Your task to perform on an android device: open device folders in google photos Image 0: 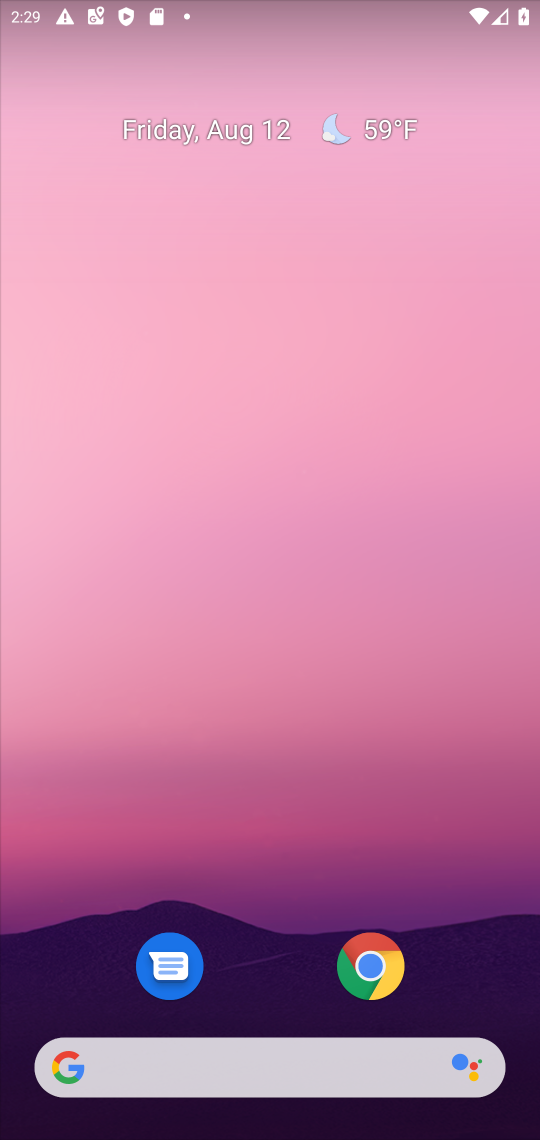
Step 0: drag from (250, 899) to (411, 151)
Your task to perform on an android device: open device folders in google photos Image 1: 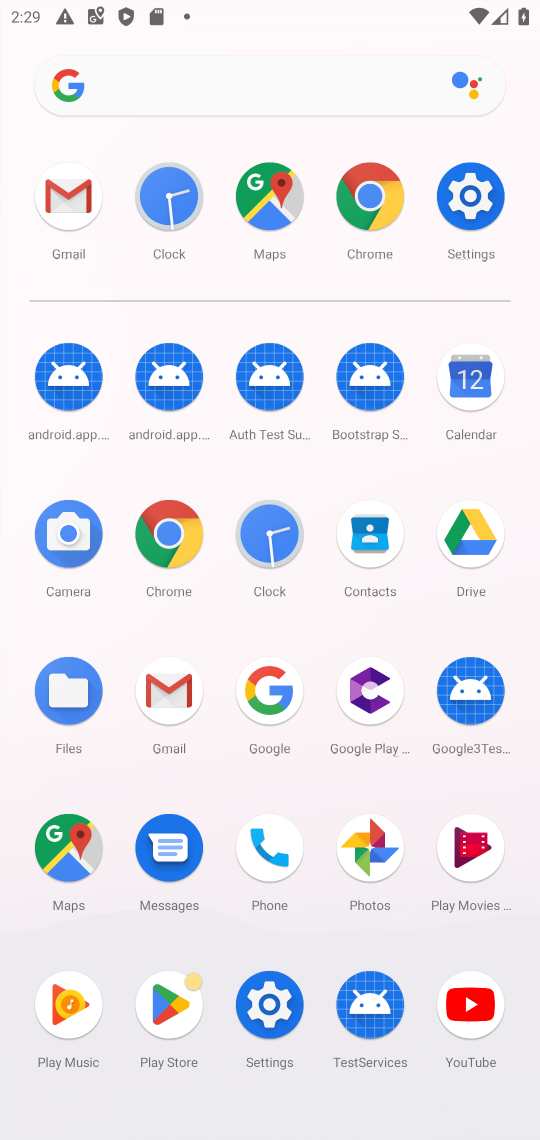
Step 1: click (368, 829)
Your task to perform on an android device: open device folders in google photos Image 2: 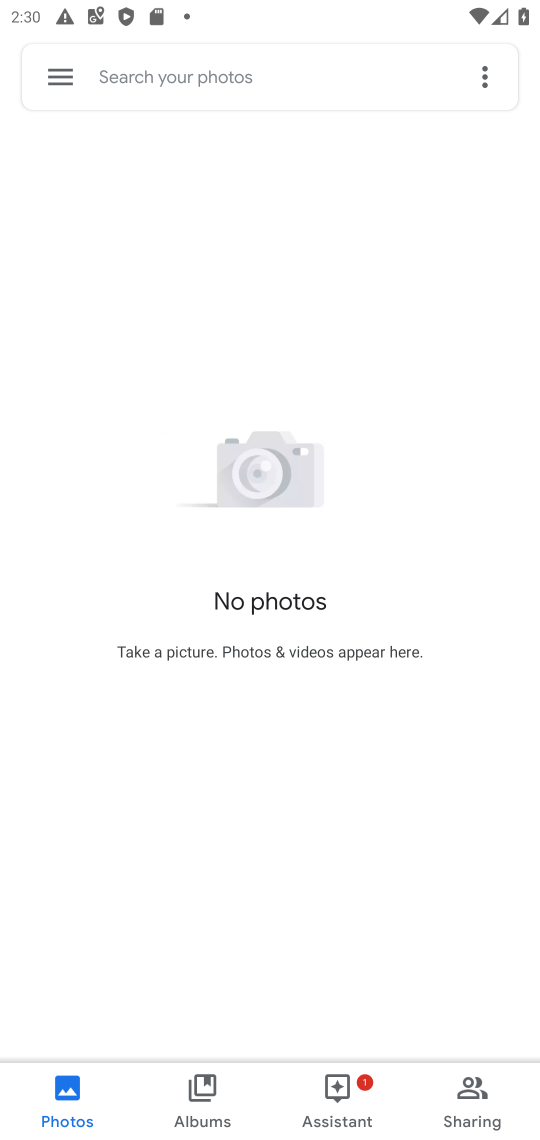
Step 2: click (70, 70)
Your task to perform on an android device: open device folders in google photos Image 3: 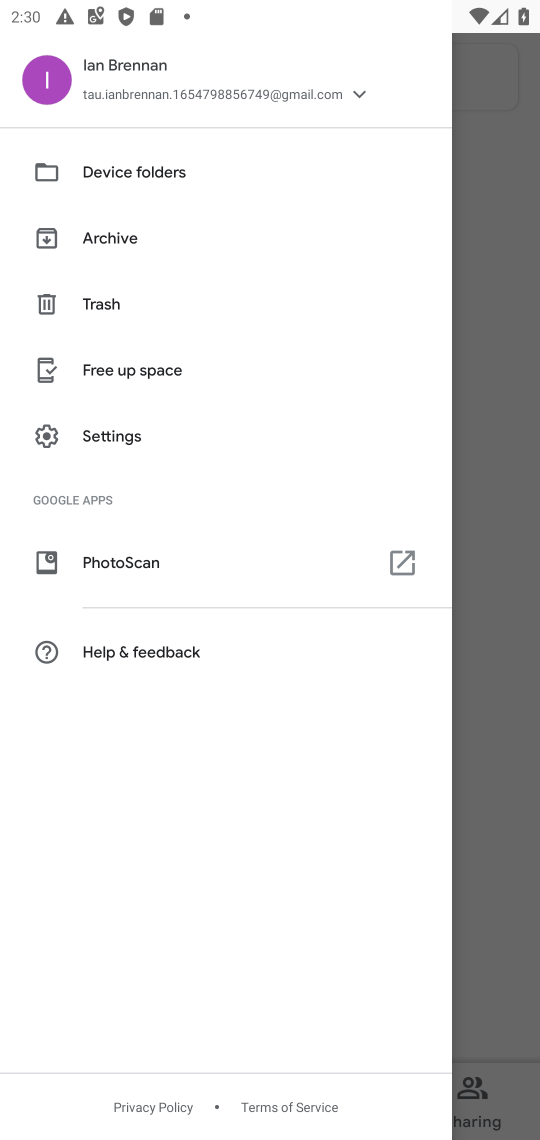
Step 3: click (134, 167)
Your task to perform on an android device: open device folders in google photos Image 4: 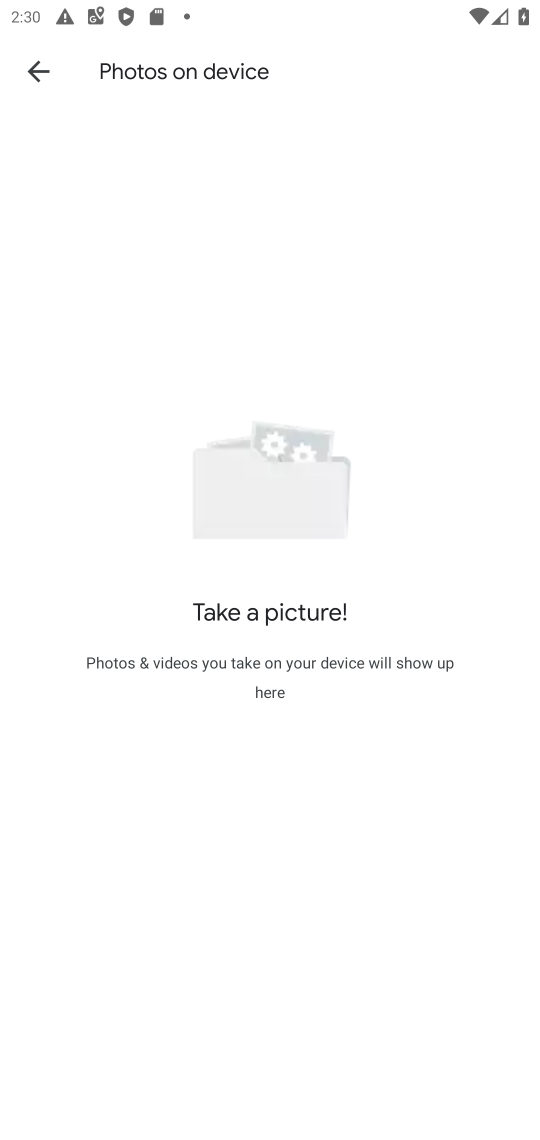
Step 4: task complete